Your task to perform on an android device: Search for good Italian restaurants on Maps Image 0: 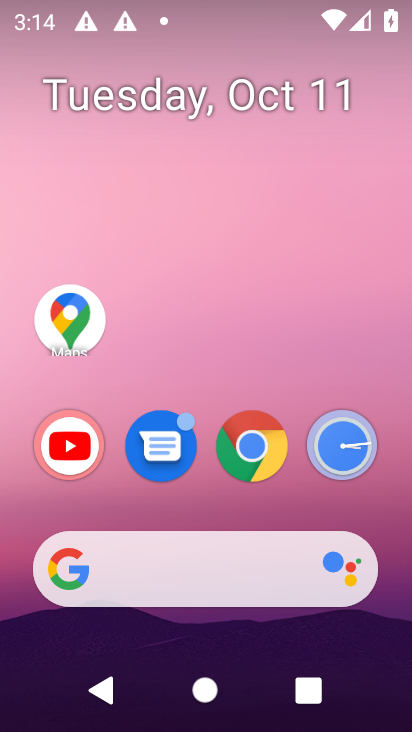
Step 0: click (77, 321)
Your task to perform on an android device: Search for good Italian restaurants on Maps Image 1: 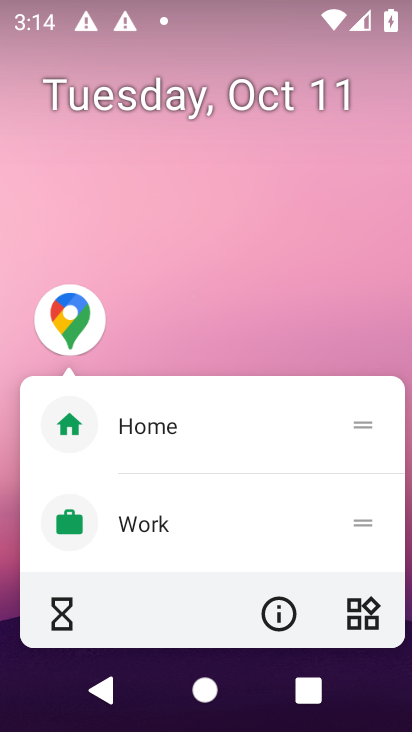
Step 1: click (71, 321)
Your task to perform on an android device: Search for good Italian restaurants on Maps Image 2: 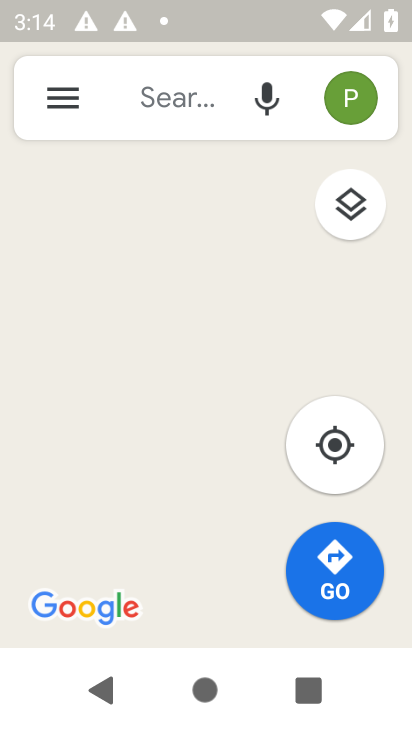
Step 2: click (135, 96)
Your task to perform on an android device: Search for good Italian restaurants on Maps Image 3: 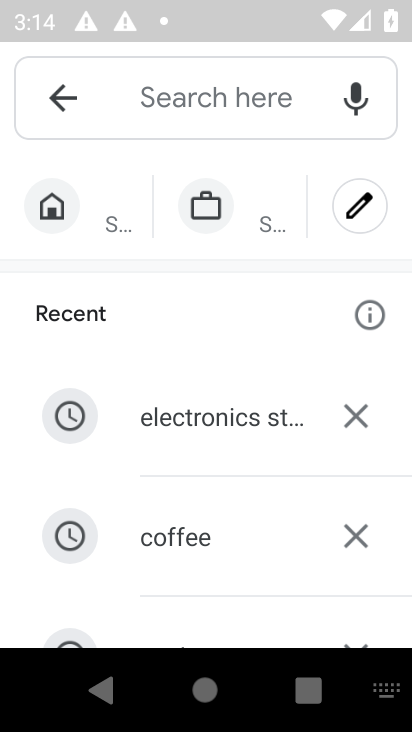
Step 3: click (157, 107)
Your task to perform on an android device: Search for good Italian restaurants on Maps Image 4: 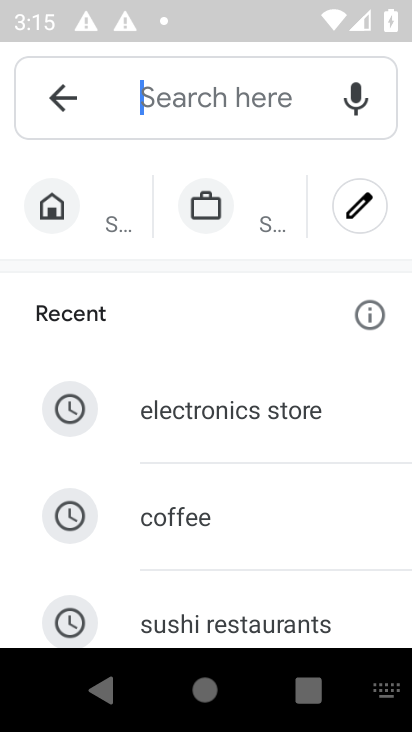
Step 4: type "good italian restaurants"
Your task to perform on an android device: Search for good Italian restaurants on Maps Image 5: 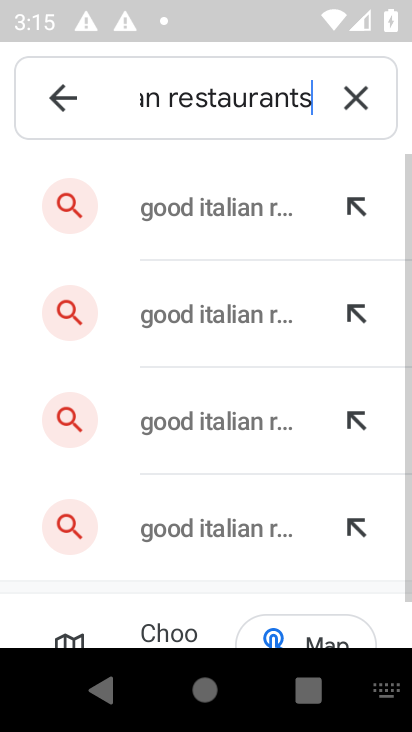
Step 5: click (196, 211)
Your task to perform on an android device: Search for good Italian restaurants on Maps Image 6: 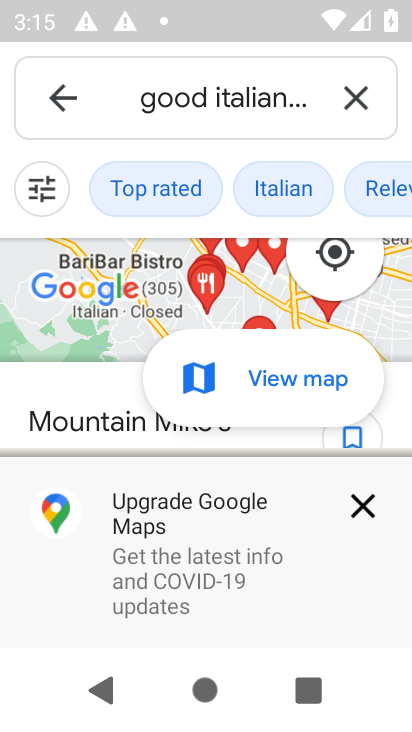
Step 6: task complete